Your task to perform on an android device: Open privacy settings Image 0: 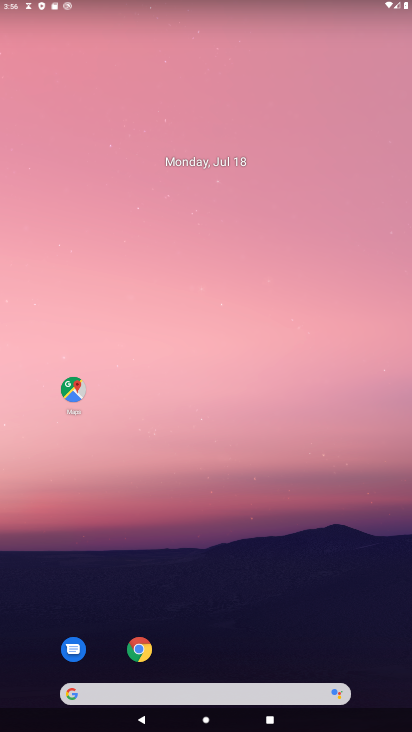
Step 0: press home button
Your task to perform on an android device: Open privacy settings Image 1: 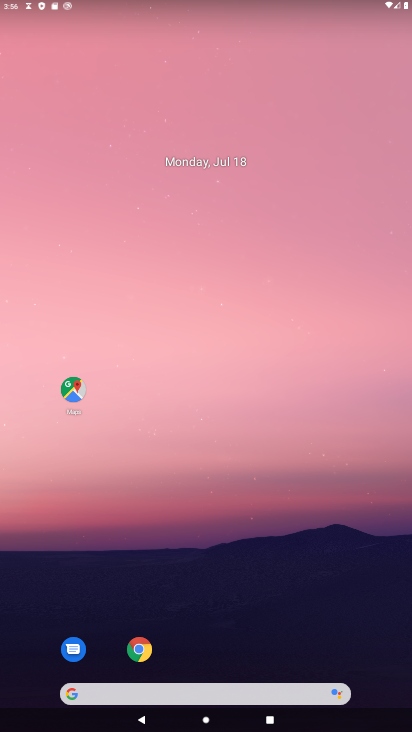
Step 1: drag from (292, 632) to (320, 128)
Your task to perform on an android device: Open privacy settings Image 2: 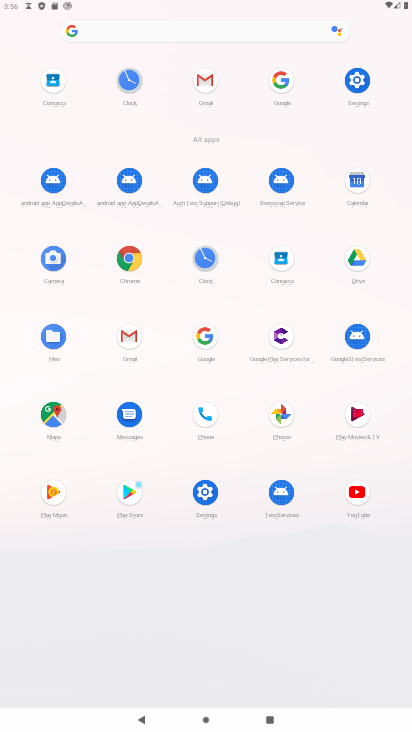
Step 2: click (359, 81)
Your task to perform on an android device: Open privacy settings Image 3: 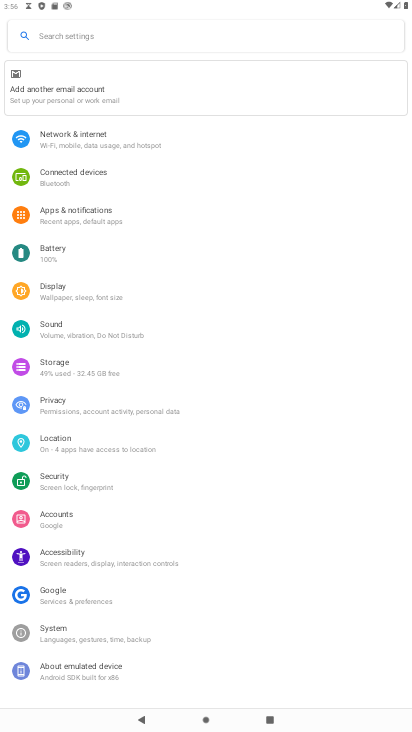
Step 3: click (63, 410)
Your task to perform on an android device: Open privacy settings Image 4: 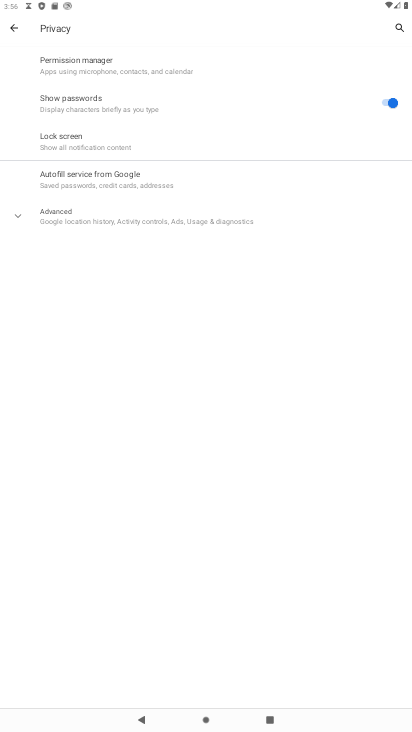
Step 4: task complete